Your task to perform on an android device: Open the stopwatch Image 0: 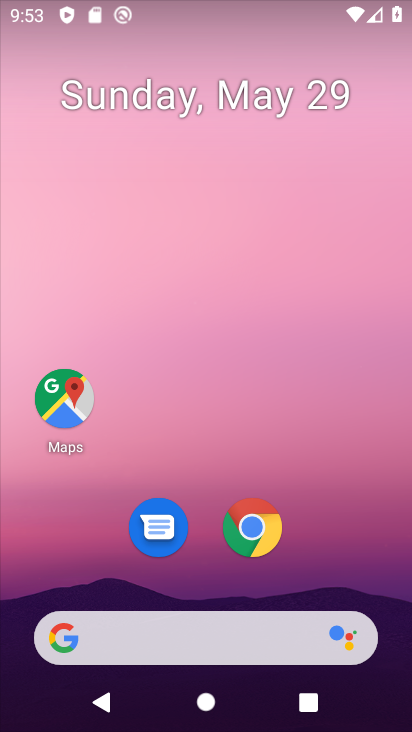
Step 0: drag from (331, 472) to (248, 130)
Your task to perform on an android device: Open the stopwatch Image 1: 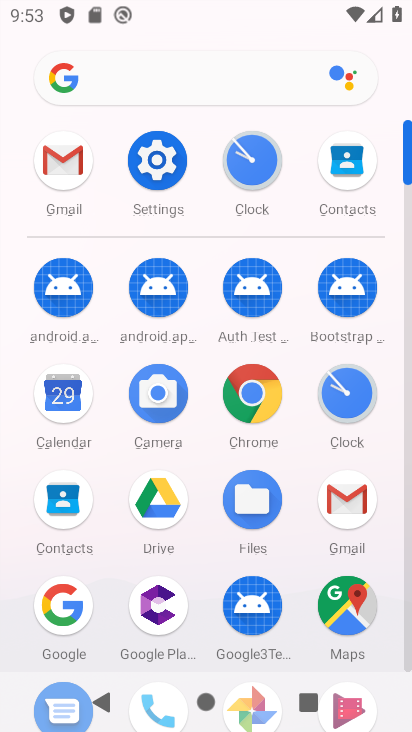
Step 1: click (251, 144)
Your task to perform on an android device: Open the stopwatch Image 2: 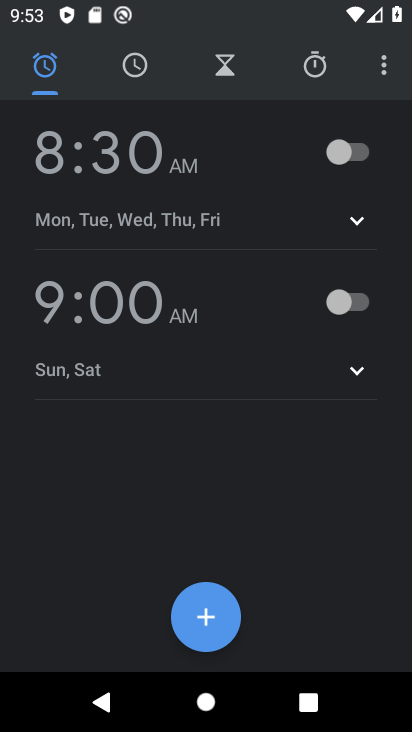
Step 2: click (316, 67)
Your task to perform on an android device: Open the stopwatch Image 3: 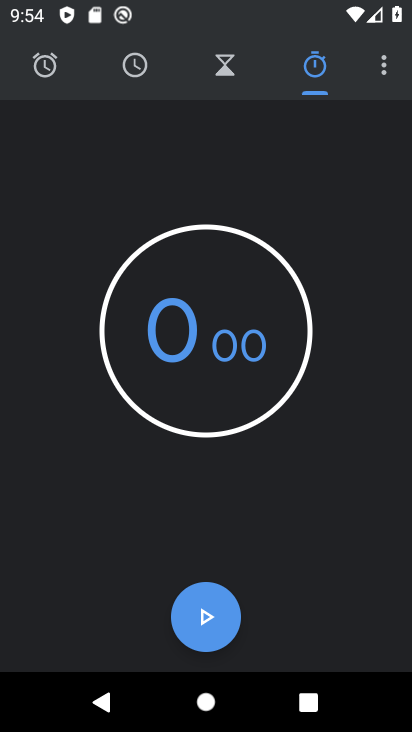
Step 3: task complete